Your task to perform on an android device: toggle improve location accuracy Image 0: 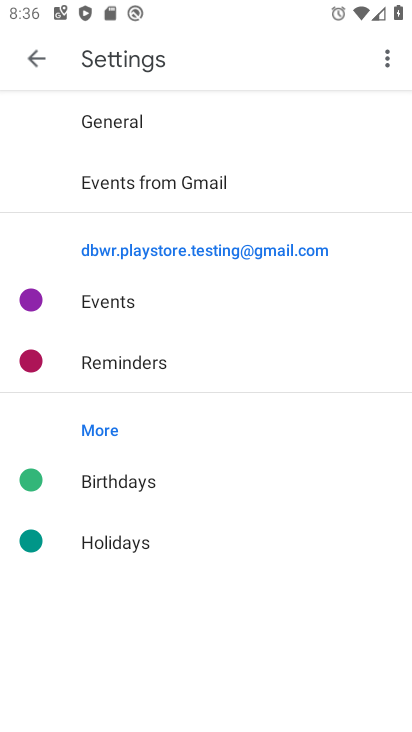
Step 0: press home button
Your task to perform on an android device: toggle improve location accuracy Image 1: 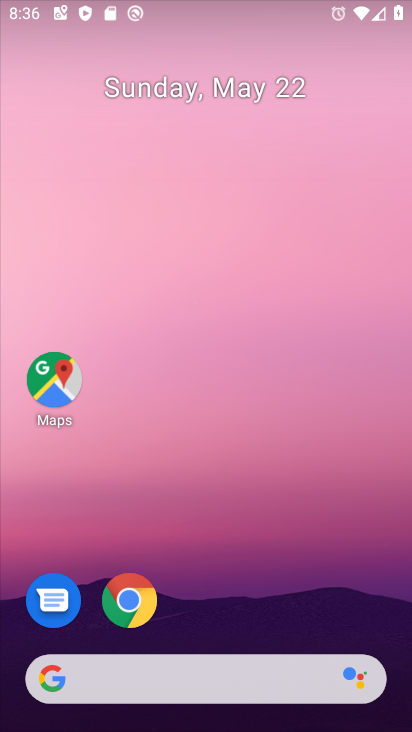
Step 1: drag from (230, 635) to (294, 264)
Your task to perform on an android device: toggle improve location accuracy Image 2: 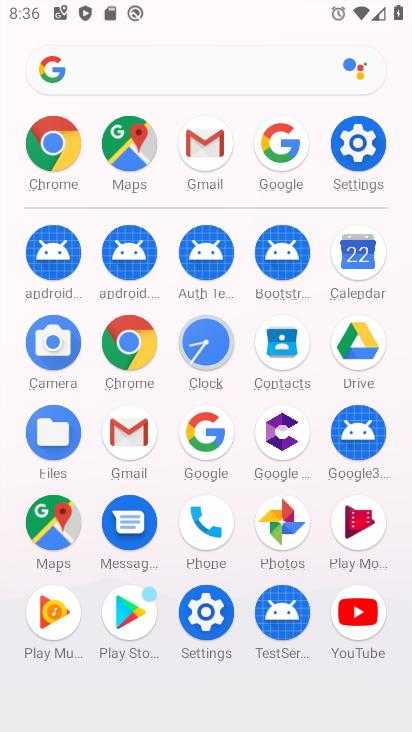
Step 2: click (370, 172)
Your task to perform on an android device: toggle improve location accuracy Image 3: 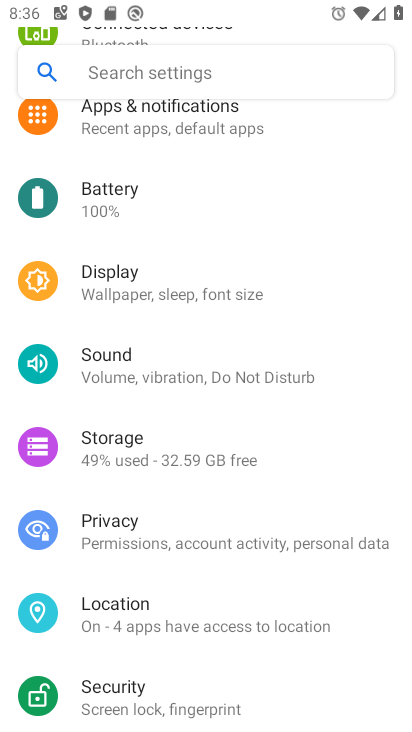
Step 3: click (145, 611)
Your task to perform on an android device: toggle improve location accuracy Image 4: 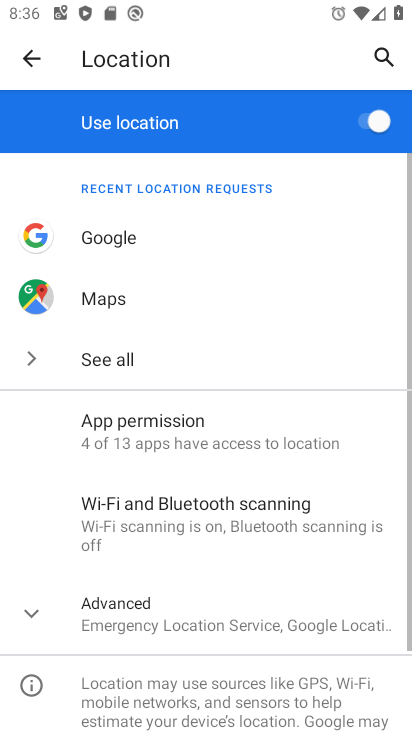
Step 4: click (145, 611)
Your task to perform on an android device: toggle improve location accuracy Image 5: 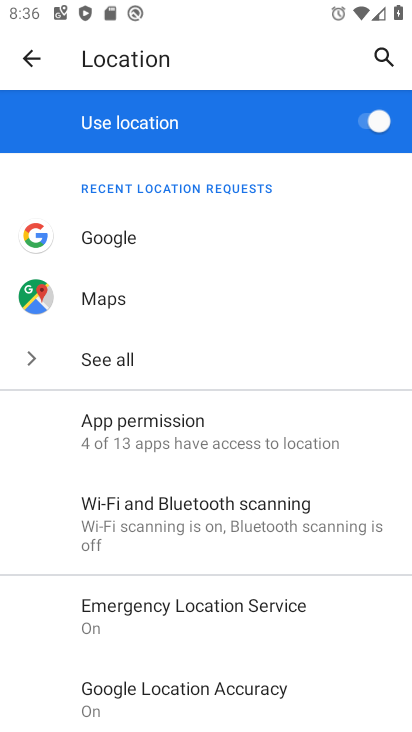
Step 5: click (176, 709)
Your task to perform on an android device: toggle improve location accuracy Image 6: 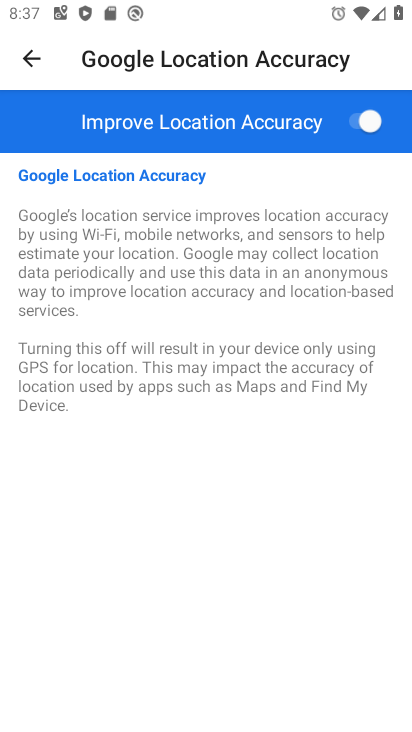
Step 6: click (362, 127)
Your task to perform on an android device: toggle improve location accuracy Image 7: 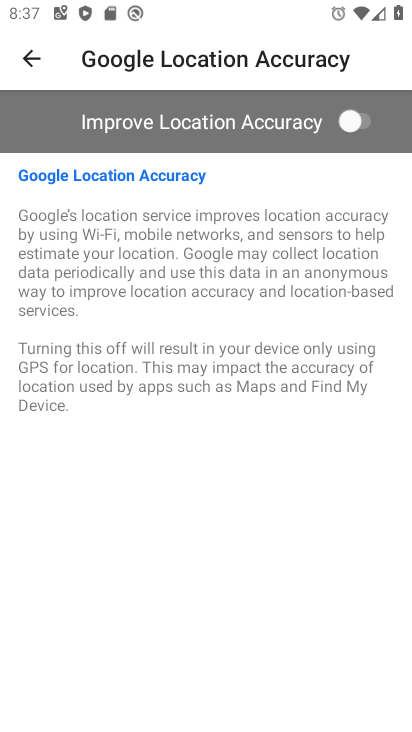
Step 7: task complete